Your task to perform on an android device: Show me the alarms in the clock app Image 0: 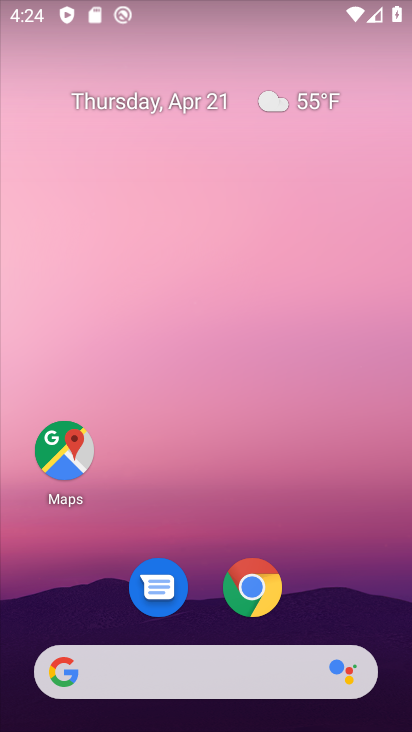
Step 0: drag from (236, 446) to (308, 65)
Your task to perform on an android device: Show me the alarms in the clock app Image 1: 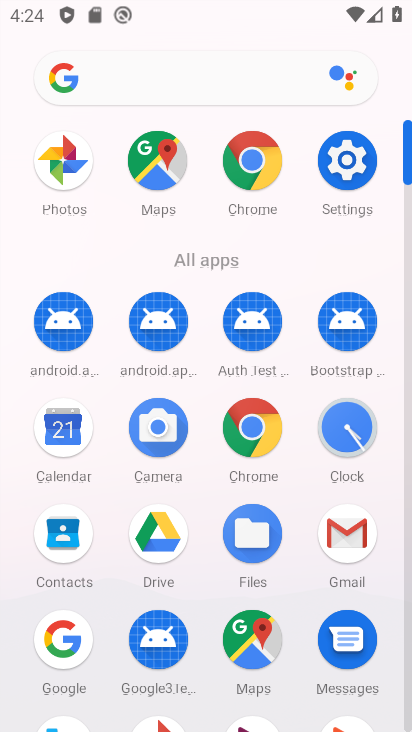
Step 1: click (362, 424)
Your task to perform on an android device: Show me the alarms in the clock app Image 2: 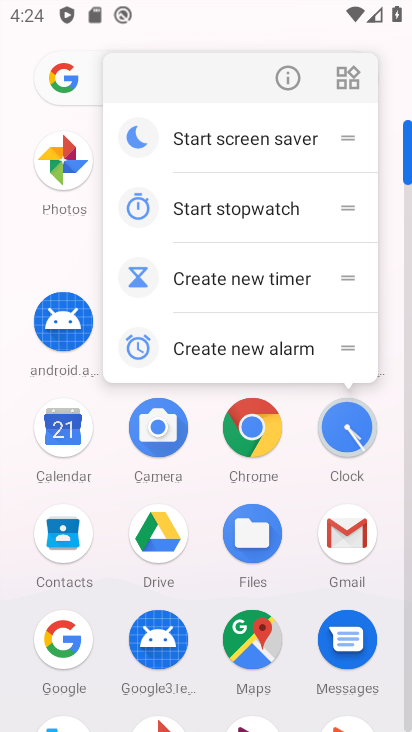
Step 2: click (363, 423)
Your task to perform on an android device: Show me the alarms in the clock app Image 3: 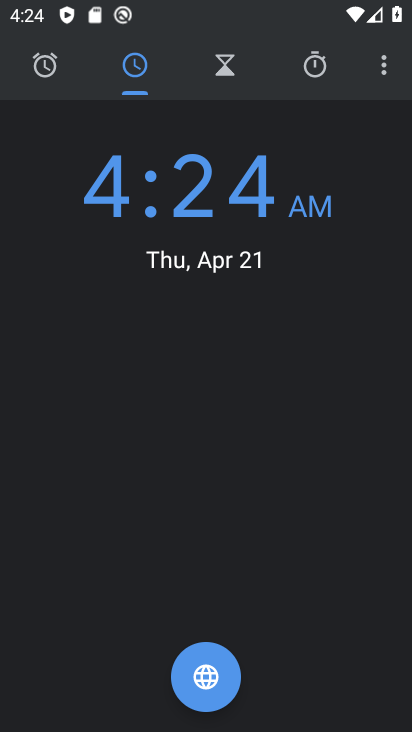
Step 3: click (49, 65)
Your task to perform on an android device: Show me the alarms in the clock app Image 4: 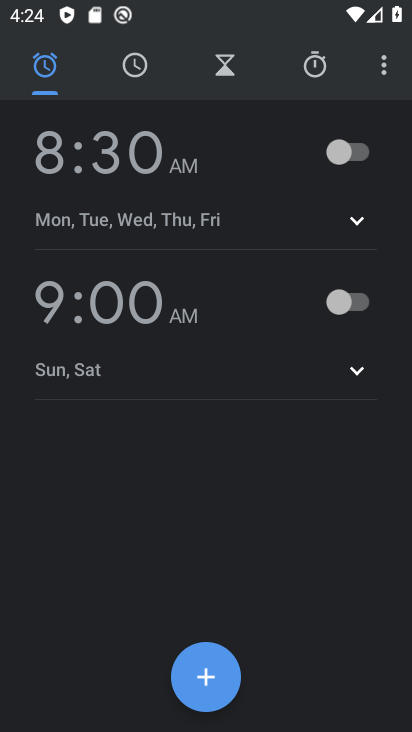
Step 4: task complete